Your task to perform on an android device: search for starred emails in the gmail app Image 0: 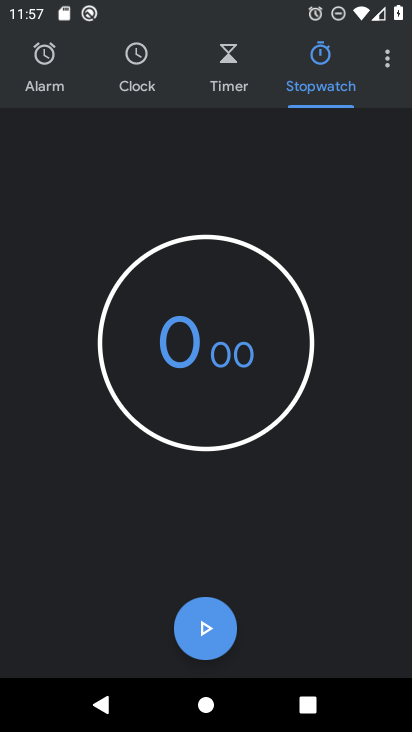
Step 0: press home button
Your task to perform on an android device: search for starred emails in the gmail app Image 1: 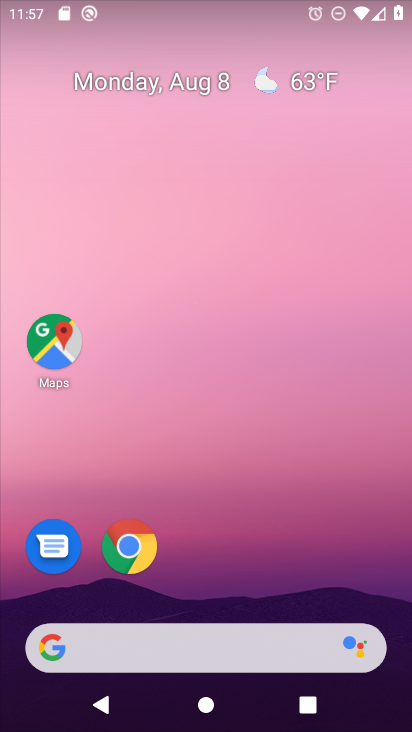
Step 1: drag from (223, 587) to (262, 37)
Your task to perform on an android device: search for starred emails in the gmail app Image 2: 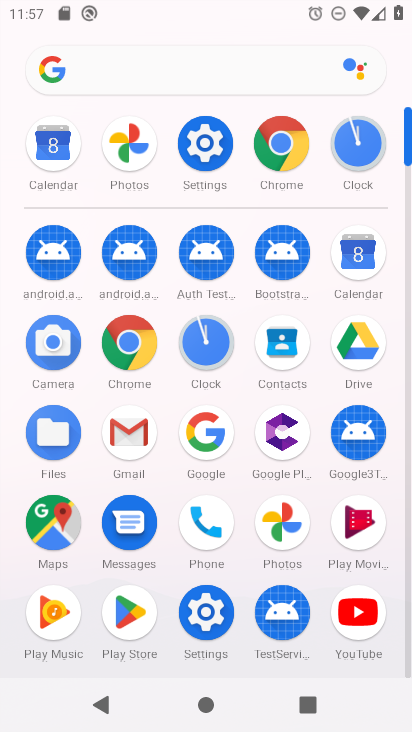
Step 2: click (131, 422)
Your task to perform on an android device: search for starred emails in the gmail app Image 3: 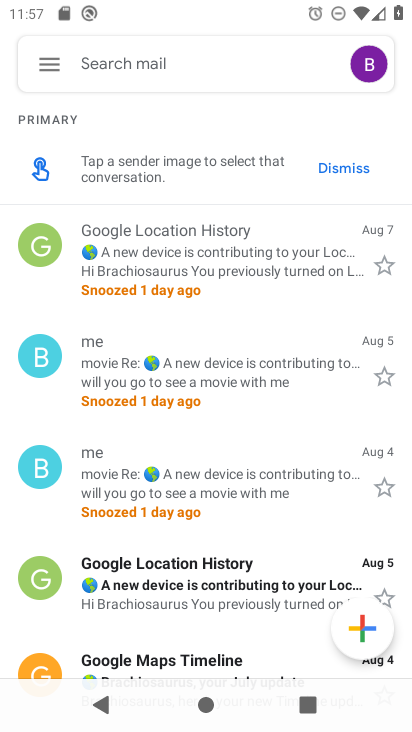
Step 3: click (34, 76)
Your task to perform on an android device: search for starred emails in the gmail app Image 4: 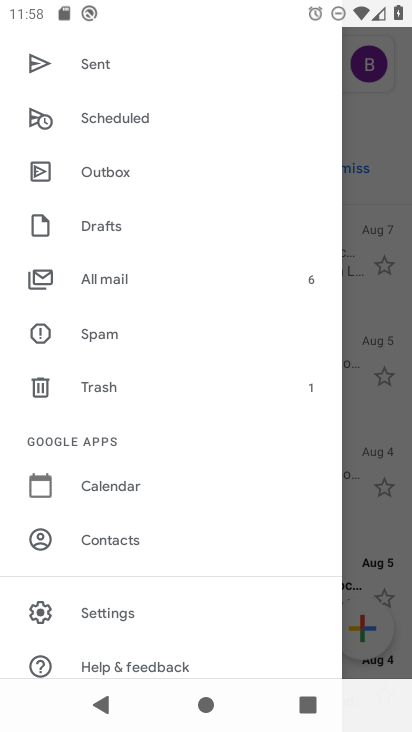
Step 4: drag from (120, 108) to (136, 708)
Your task to perform on an android device: search for starred emails in the gmail app Image 5: 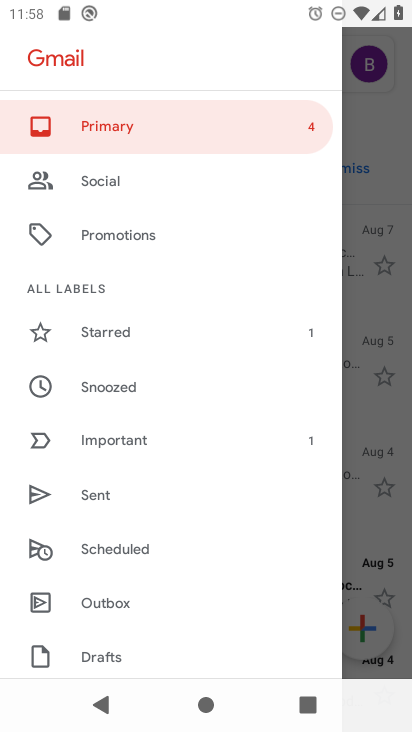
Step 5: click (131, 328)
Your task to perform on an android device: search for starred emails in the gmail app Image 6: 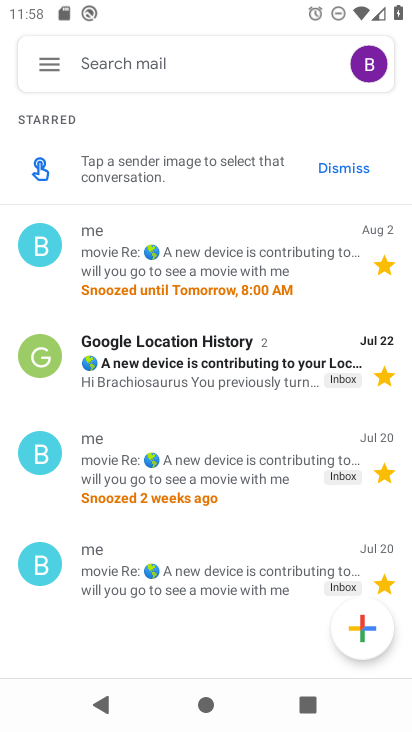
Step 6: task complete